Your task to perform on an android device: Go to privacy settings Image 0: 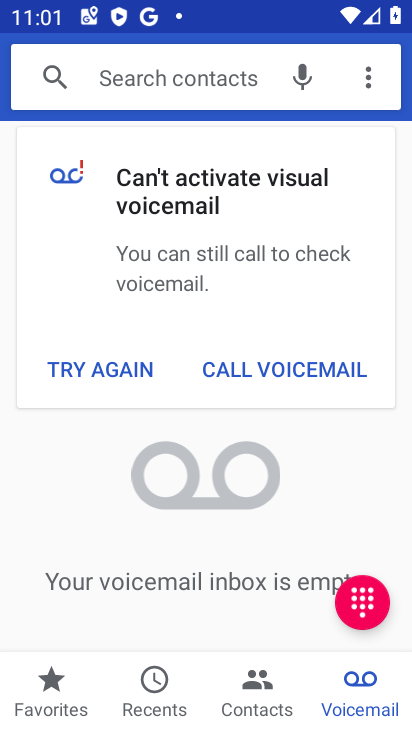
Step 0: press home button
Your task to perform on an android device: Go to privacy settings Image 1: 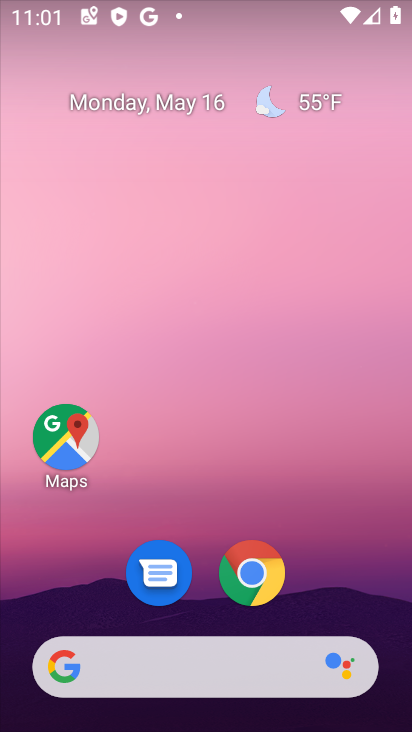
Step 1: drag from (346, 516) to (275, 45)
Your task to perform on an android device: Go to privacy settings Image 2: 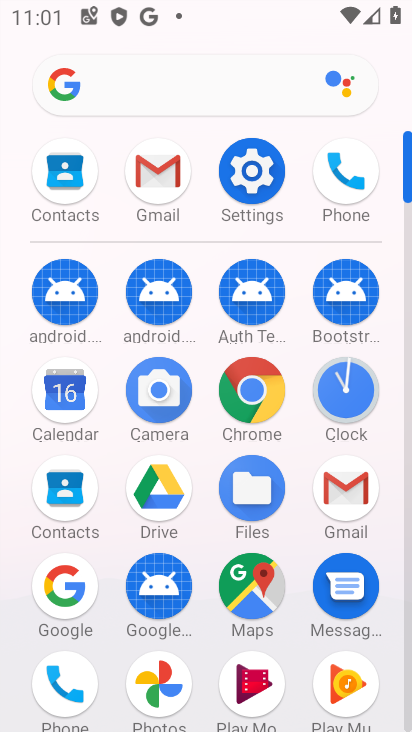
Step 2: click (260, 170)
Your task to perform on an android device: Go to privacy settings Image 3: 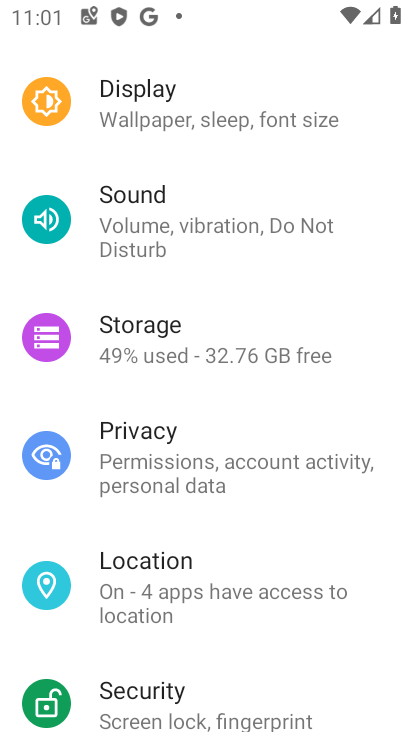
Step 3: click (164, 471)
Your task to perform on an android device: Go to privacy settings Image 4: 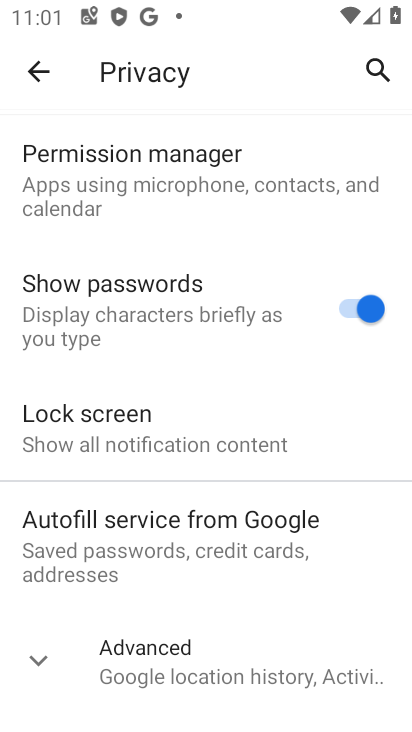
Step 4: task complete